Your task to perform on an android device: empty trash in the gmail app Image 0: 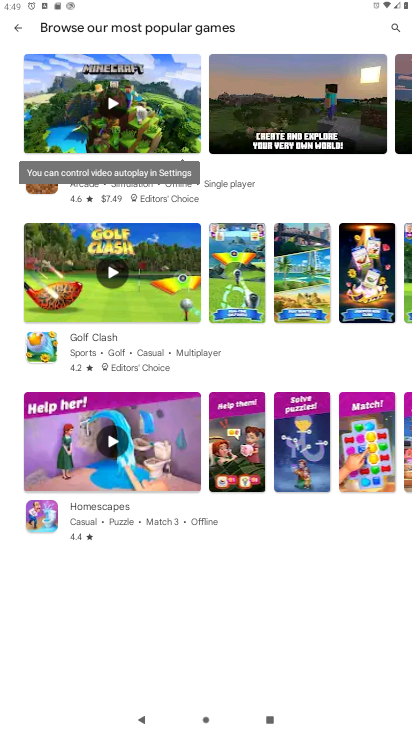
Step 0: press home button
Your task to perform on an android device: empty trash in the gmail app Image 1: 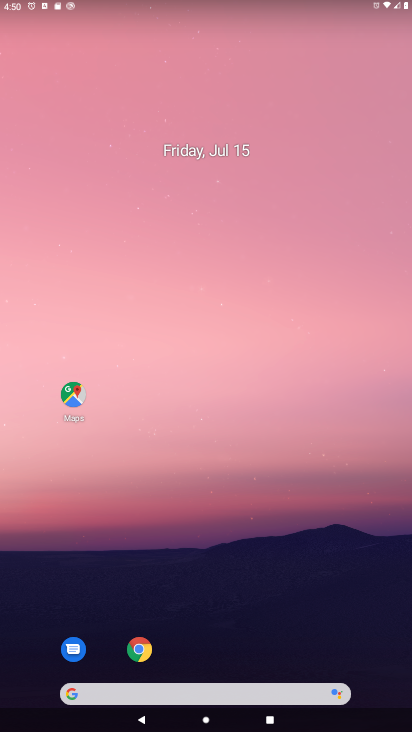
Step 1: drag from (379, 661) to (313, 28)
Your task to perform on an android device: empty trash in the gmail app Image 2: 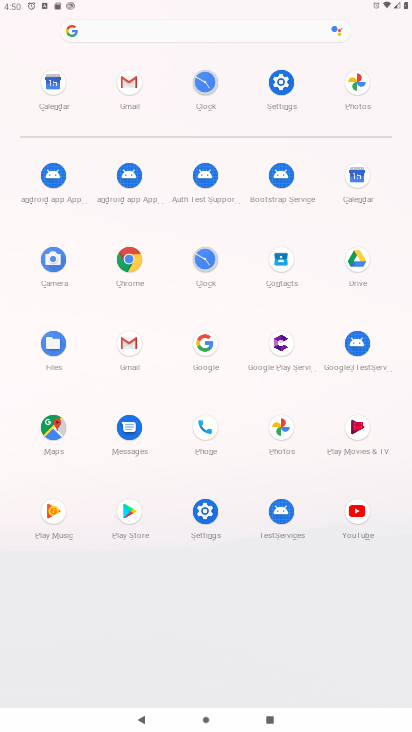
Step 2: click (128, 343)
Your task to perform on an android device: empty trash in the gmail app Image 3: 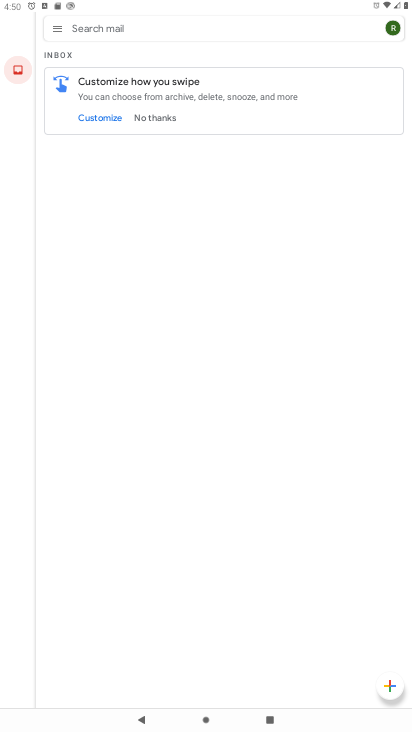
Step 3: click (55, 29)
Your task to perform on an android device: empty trash in the gmail app Image 4: 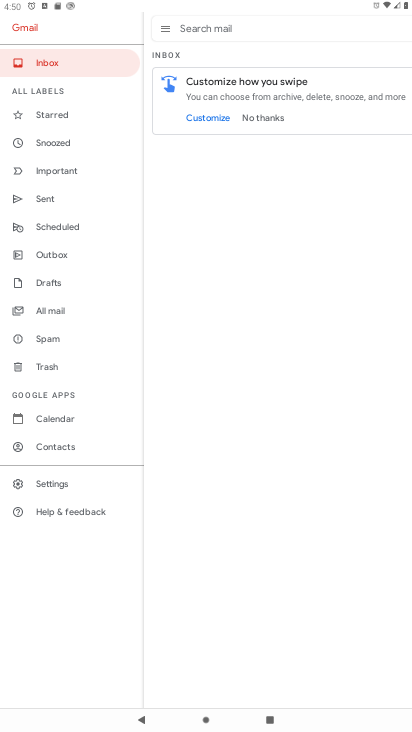
Step 4: click (45, 369)
Your task to perform on an android device: empty trash in the gmail app Image 5: 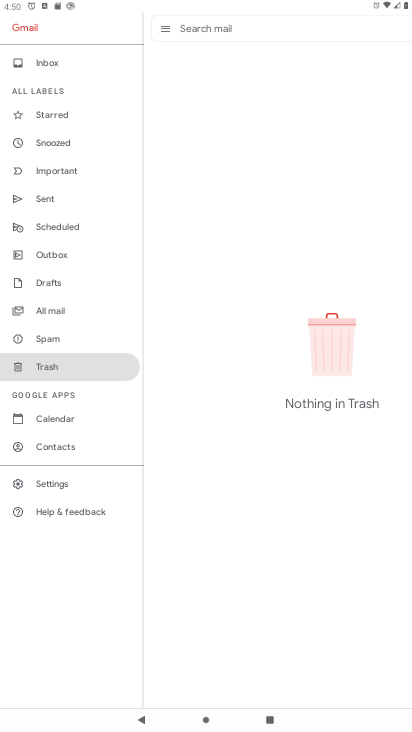
Step 5: task complete